Your task to perform on an android device: change the clock display to show seconds Image 0: 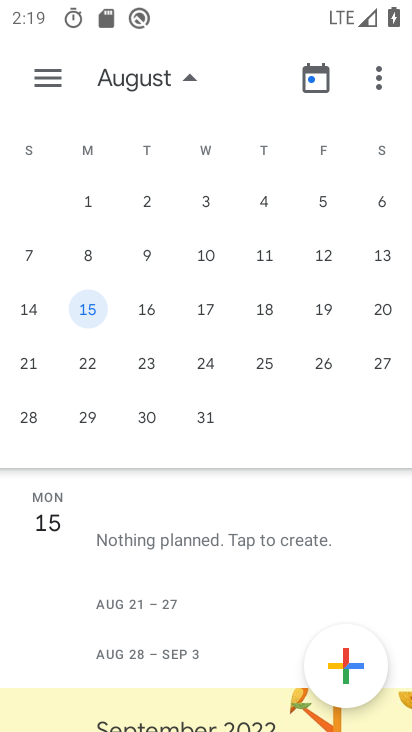
Step 0: press home button
Your task to perform on an android device: change the clock display to show seconds Image 1: 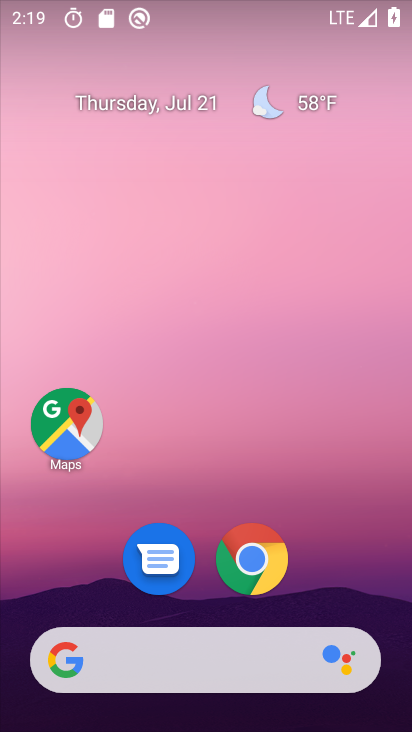
Step 1: drag from (375, 548) to (360, 132)
Your task to perform on an android device: change the clock display to show seconds Image 2: 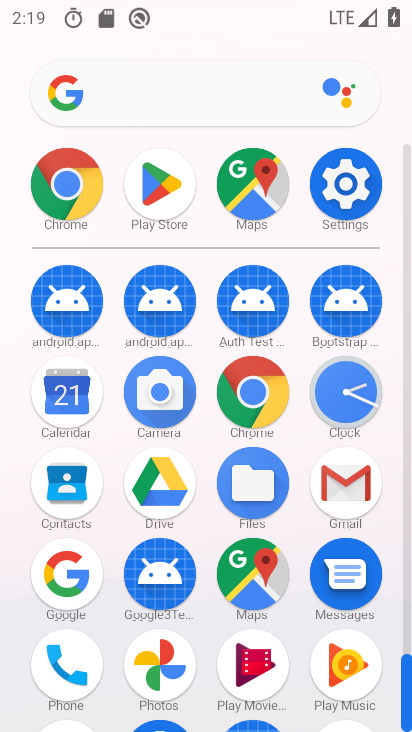
Step 2: click (368, 400)
Your task to perform on an android device: change the clock display to show seconds Image 3: 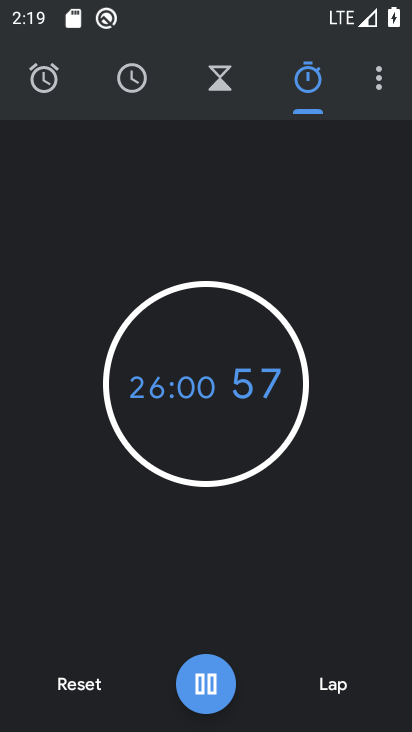
Step 3: click (378, 90)
Your task to perform on an android device: change the clock display to show seconds Image 4: 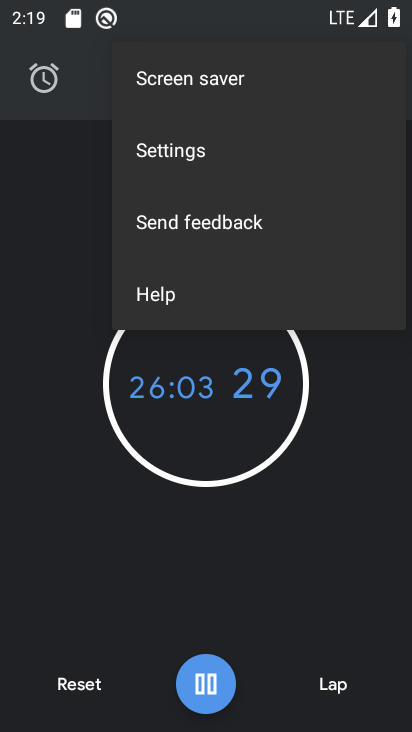
Step 4: click (321, 146)
Your task to perform on an android device: change the clock display to show seconds Image 5: 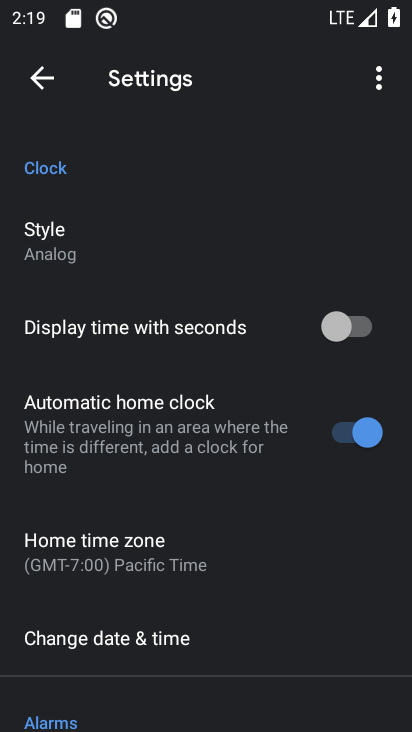
Step 5: drag from (270, 550) to (270, 482)
Your task to perform on an android device: change the clock display to show seconds Image 6: 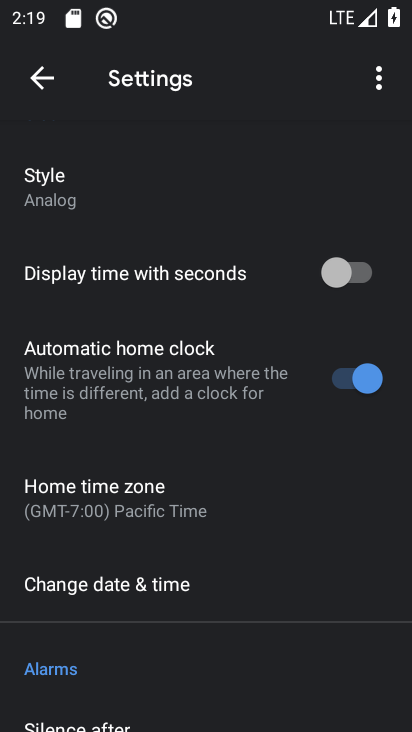
Step 6: drag from (267, 550) to (272, 473)
Your task to perform on an android device: change the clock display to show seconds Image 7: 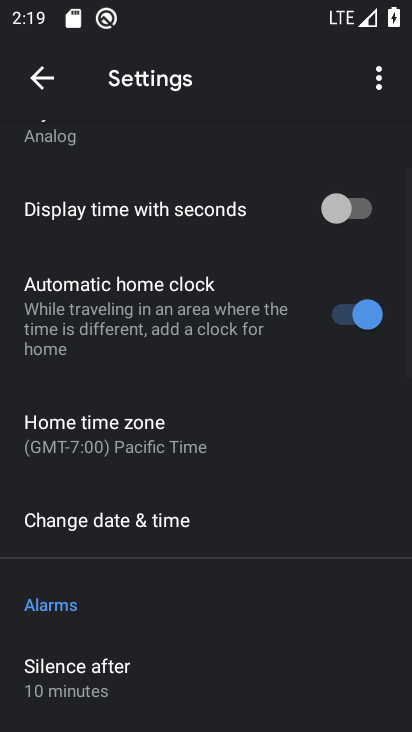
Step 7: drag from (272, 537) to (277, 445)
Your task to perform on an android device: change the clock display to show seconds Image 8: 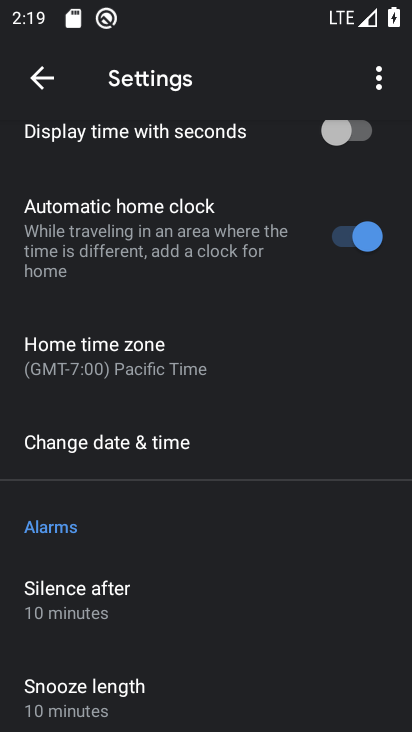
Step 8: drag from (274, 513) to (273, 435)
Your task to perform on an android device: change the clock display to show seconds Image 9: 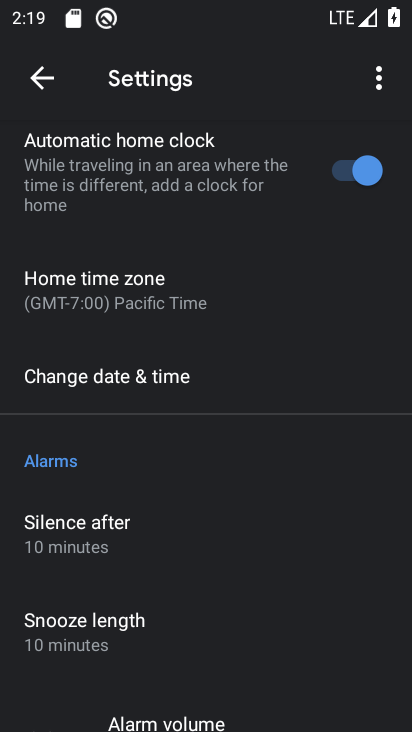
Step 9: drag from (289, 307) to (292, 396)
Your task to perform on an android device: change the clock display to show seconds Image 10: 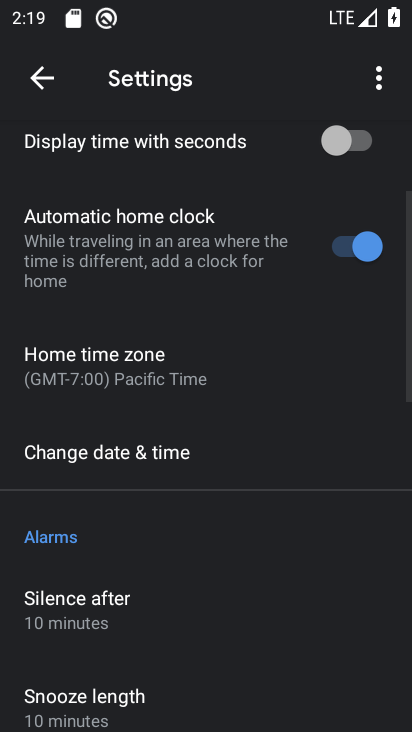
Step 10: drag from (292, 258) to (298, 400)
Your task to perform on an android device: change the clock display to show seconds Image 11: 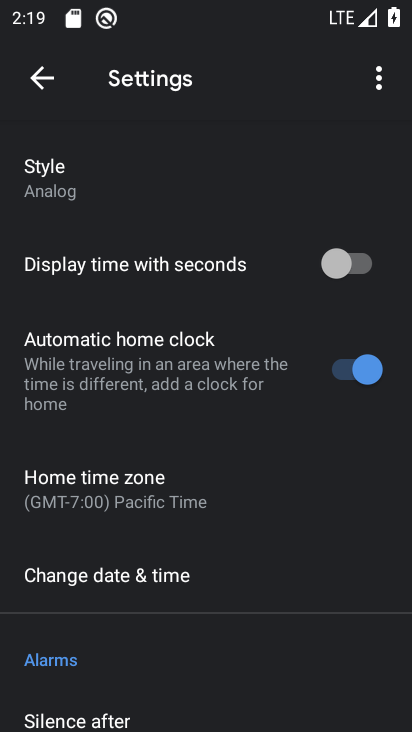
Step 11: click (337, 272)
Your task to perform on an android device: change the clock display to show seconds Image 12: 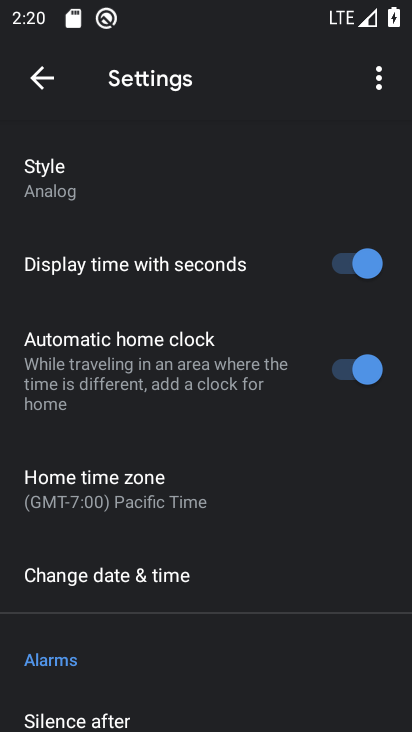
Step 12: task complete